Your task to perform on an android device: choose inbox layout in the gmail app Image 0: 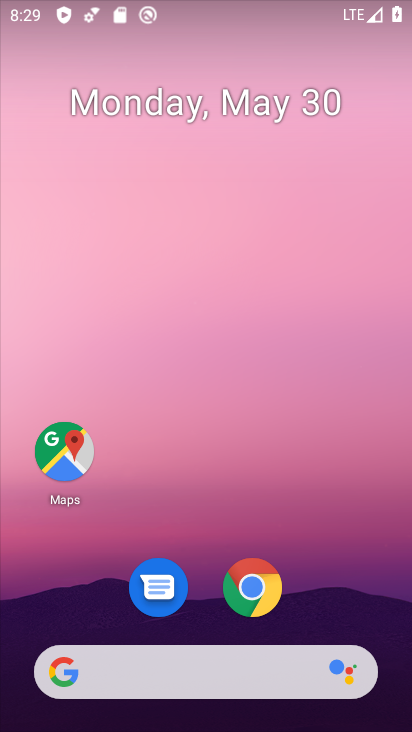
Step 0: drag from (211, 496) to (237, 17)
Your task to perform on an android device: choose inbox layout in the gmail app Image 1: 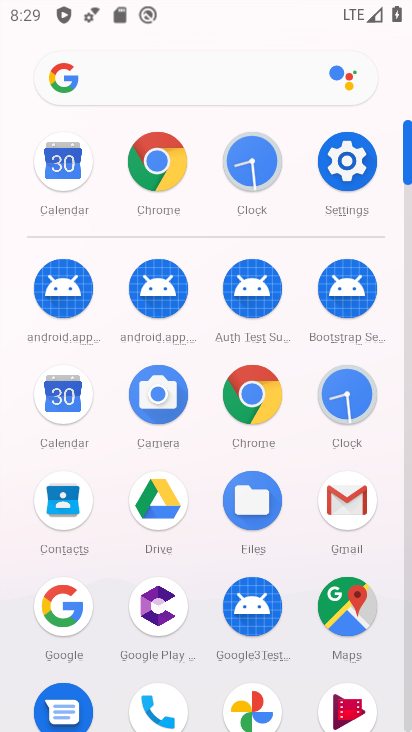
Step 1: click (340, 510)
Your task to perform on an android device: choose inbox layout in the gmail app Image 2: 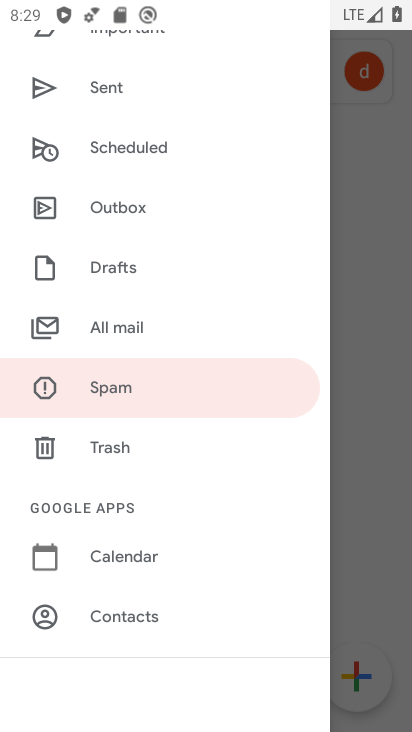
Step 2: drag from (131, 145) to (89, 564)
Your task to perform on an android device: choose inbox layout in the gmail app Image 3: 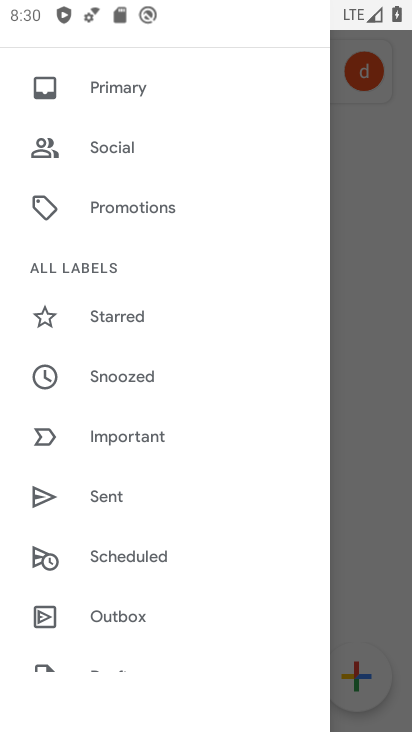
Step 3: drag from (118, 548) to (147, 166)
Your task to perform on an android device: choose inbox layout in the gmail app Image 4: 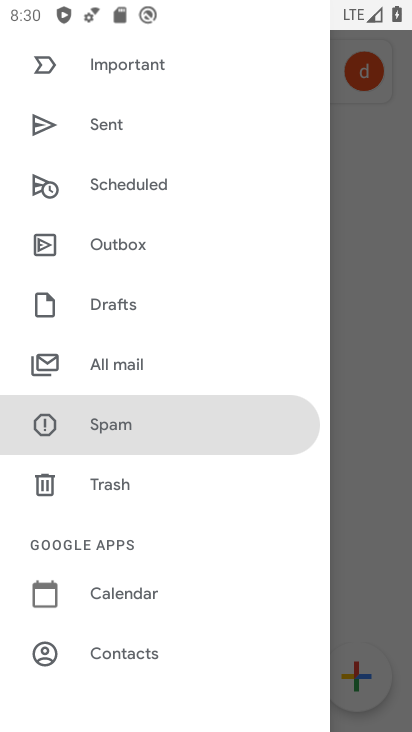
Step 4: drag from (131, 609) to (141, 300)
Your task to perform on an android device: choose inbox layout in the gmail app Image 5: 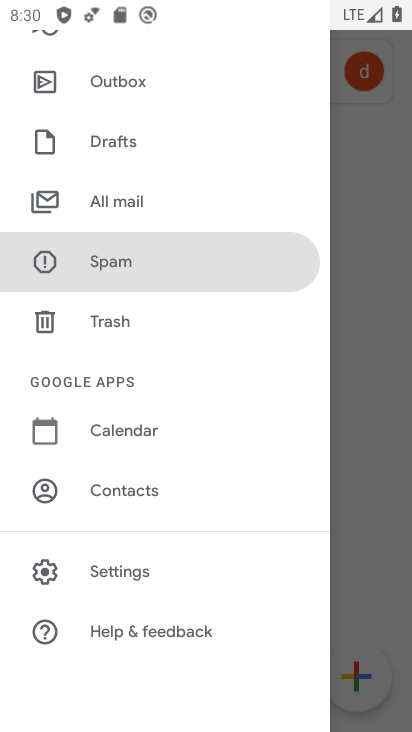
Step 5: click (127, 581)
Your task to perform on an android device: choose inbox layout in the gmail app Image 6: 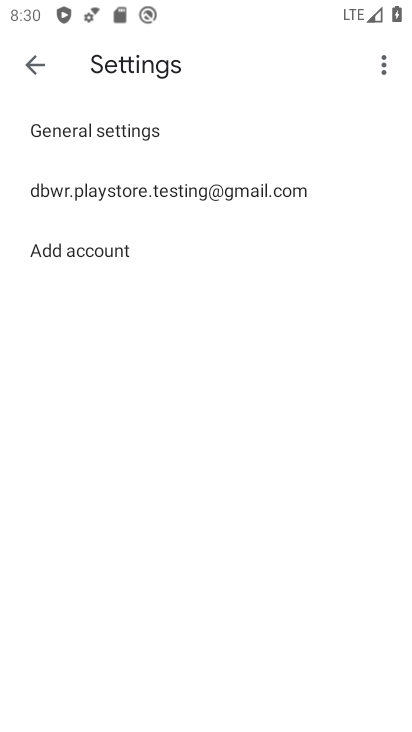
Step 6: click (111, 185)
Your task to perform on an android device: choose inbox layout in the gmail app Image 7: 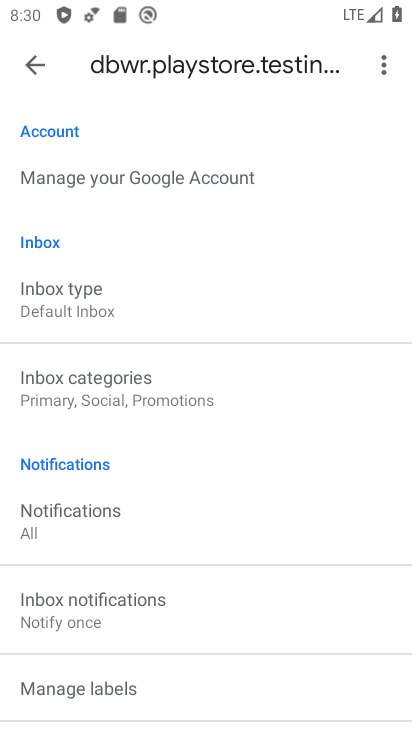
Step 7: click (106, 302)
Your task to perform on an android device: choose inbox layout in the gmail app Image 8: 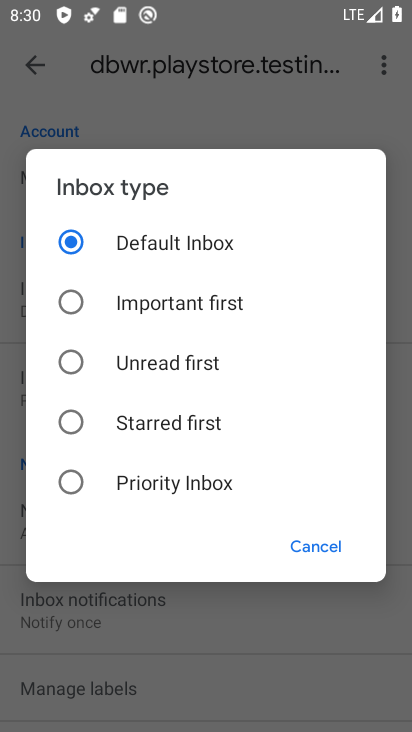
Step 8: click (70, 479)
Your task to perform on an android device: choose inbox layout in the gmail app Image 9: 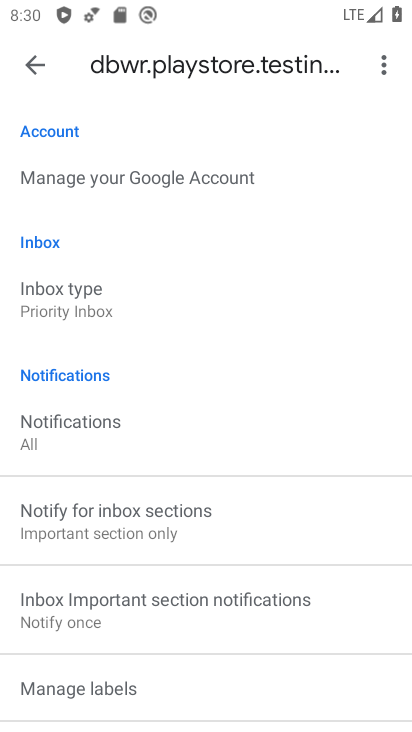
Step 9: task complete